Your task to perform on an android device: turn off sleep mode Image 0: 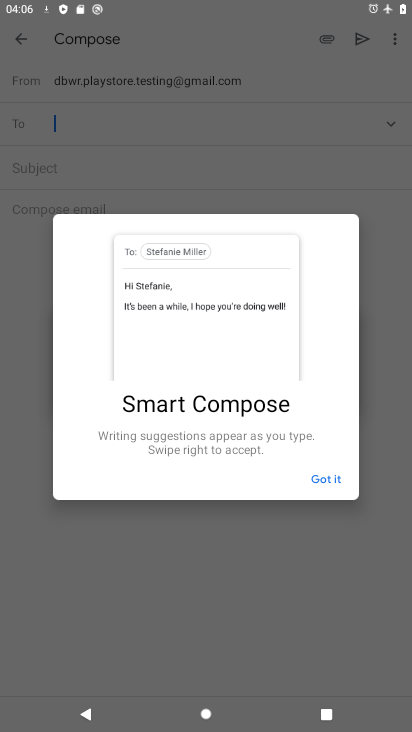
Step 0: press home button
Your task to perform on an android device: turn off sleep mode Image 1: 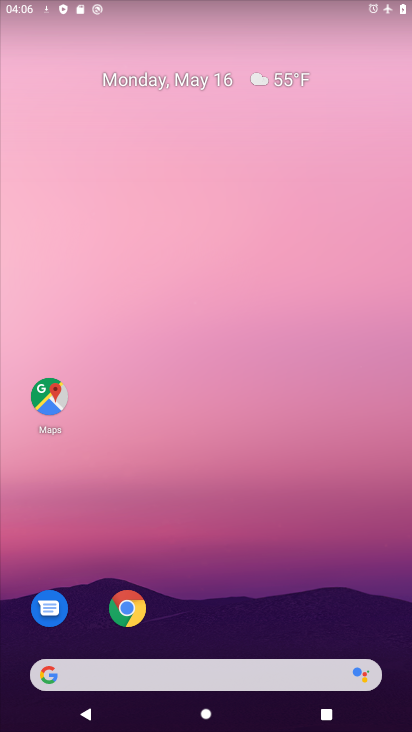
Step 1: drag from (243, 629) to (275, 197)
Your task to perform on an android device: turn off sleep mode Image 2: 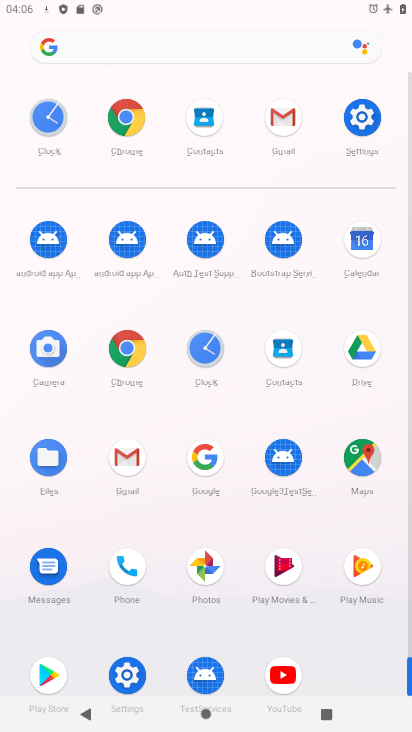
Step 2: click (347, 112)
Your task to perform on an android device: turn off sleep mode Image 3: 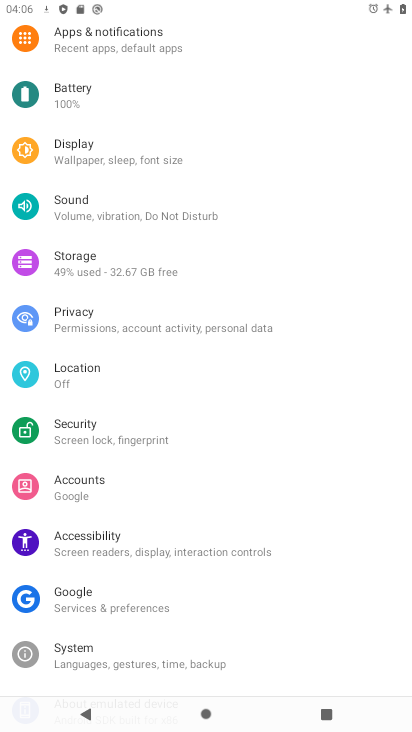
Step 3: click (182, 160)
Your task to perform on an android device: turn off sleep mode Image 4: 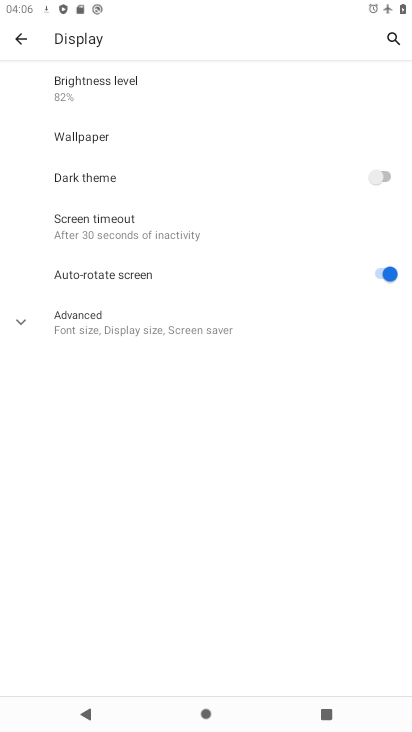
Step 4: click (91, 320)
Your task to perform on an android device: turn off sleep mode Image 5: 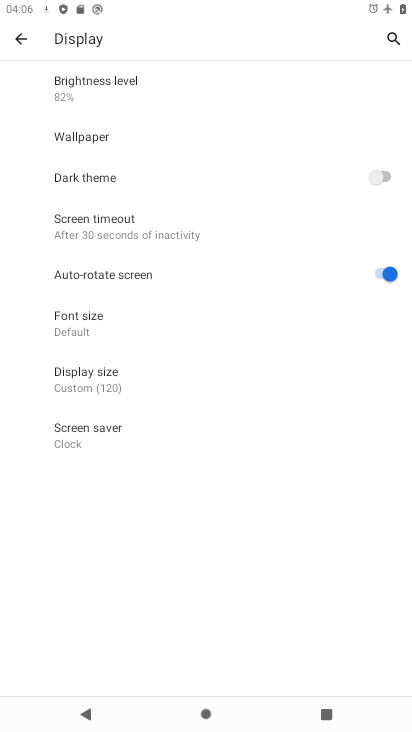
Step 5: click (108, 232)
Your task to perform on an android device: turn off sleep mode Image 6: 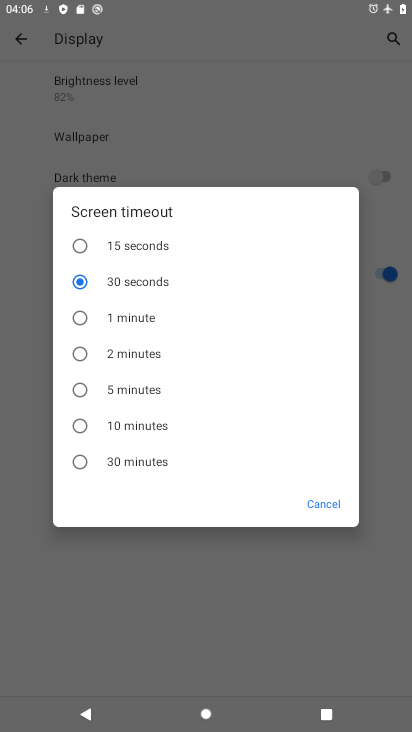
Step 6: click (128, 418)
Your task to perform on an android device: turn off sleep mode Image 7: 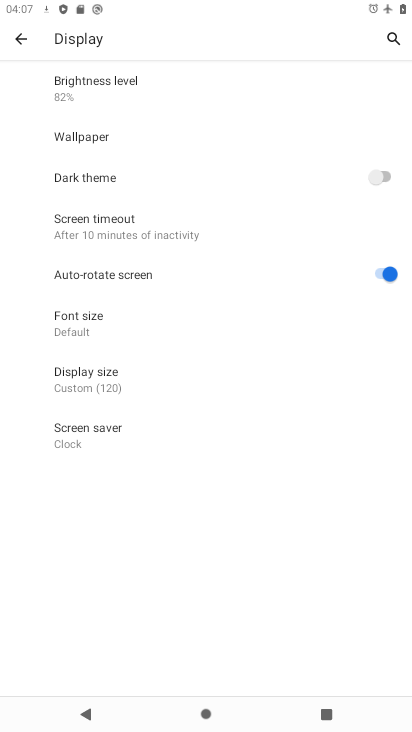
Step 7: task complete